Your task to perform on an android device: turn on wifi Image 0: 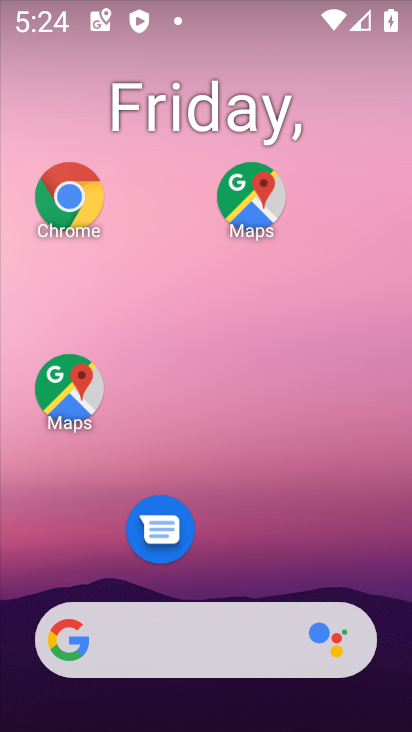
Step 0: drag from (275, 494) to (215, 63)
Your task to perform on an android device: turn on wifi Image 1: 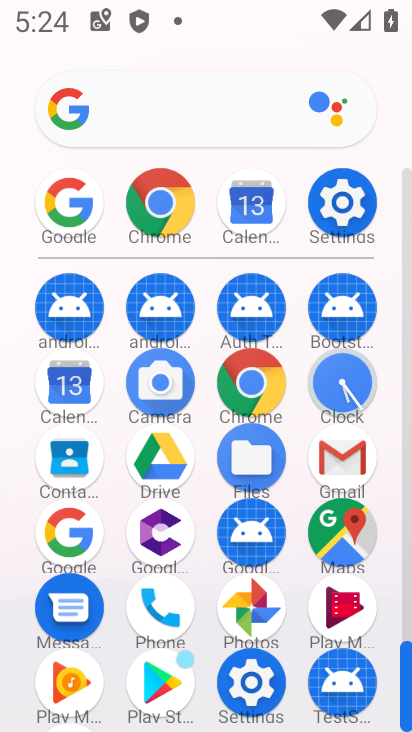
Step 1: click (348, 217)
Your task to perform on an android device: turn on wifi Image 2: 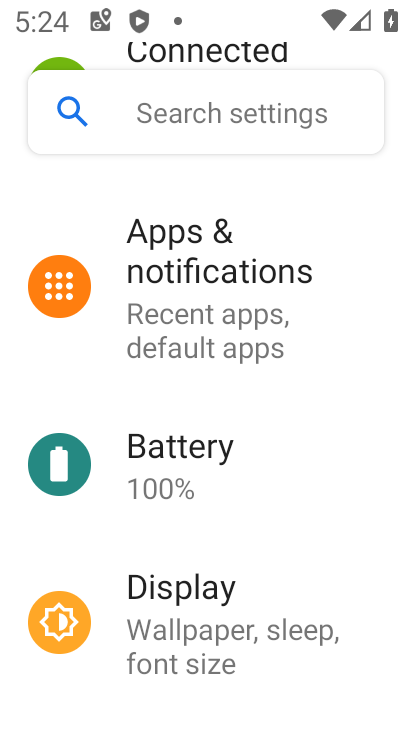
Step 2: drag from (232, 241) to (198, 575)
Your task to perform on an android device: turn on wifi Image 3: 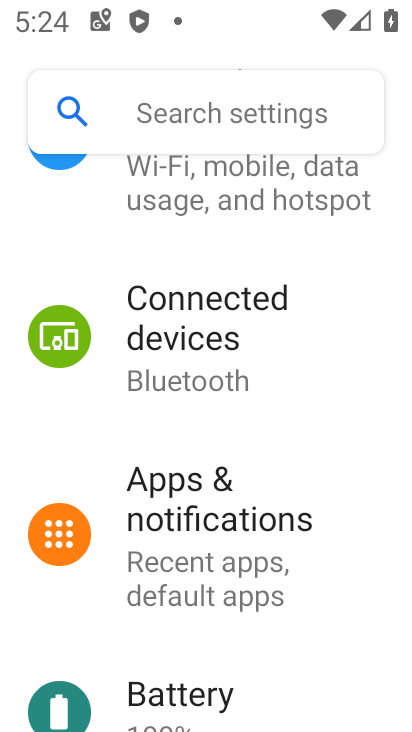
Step 3: drag from (279, 291) to (230, 592)
Your task to perform on an android device: turn on wifi Image 4: 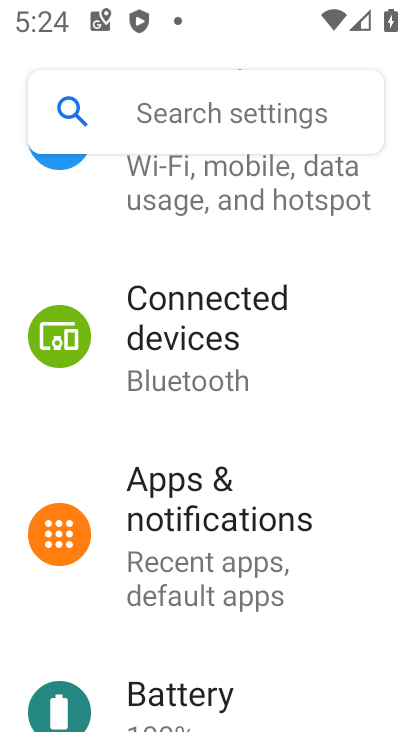
Step 4: click (240, 699)
Your task to perform on an android device: turn on wifi Image 5: 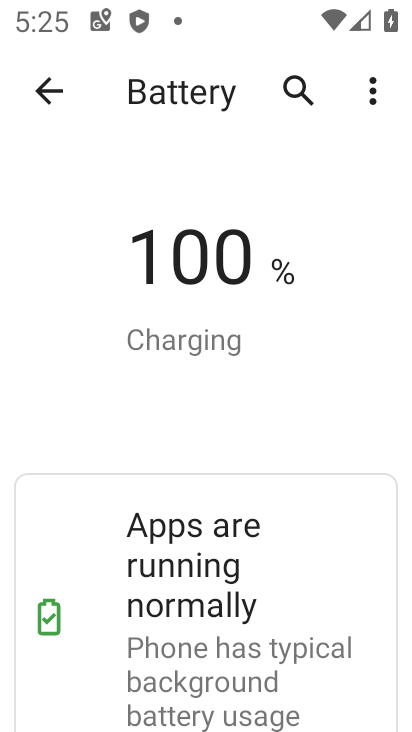
Step 5: click (43, 92)
Your task to perform on an android device: turn on wifi Image 6: 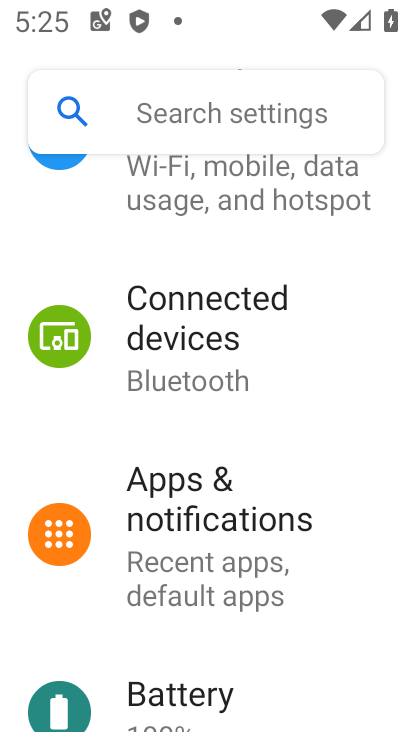
Step 6: drag from (239, 337) to (206, 540)
Your task to perform on an android device: turn on wifi Image 7: 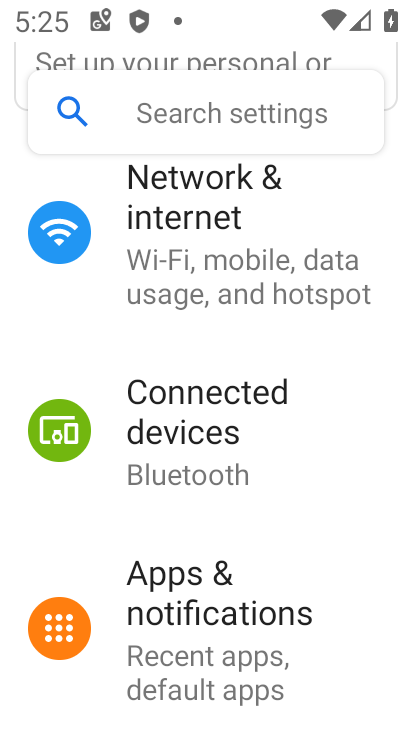
Step 7: click (225, 260)
Your task to perform on an android device: turn on wifi Image 8: 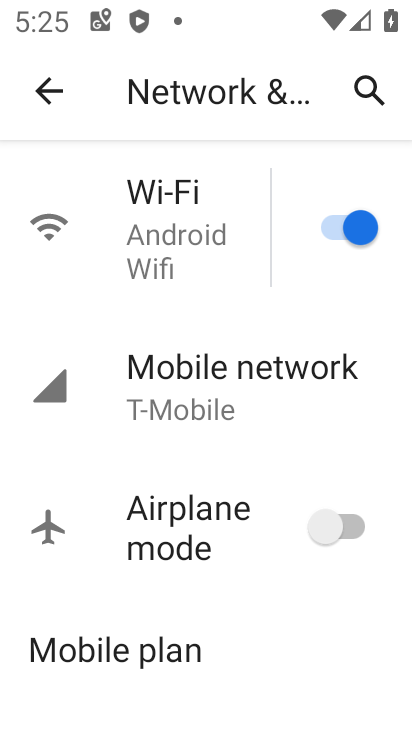
Step 8: task complete